Your task to perform on an android device: Go to location settings Image 0: 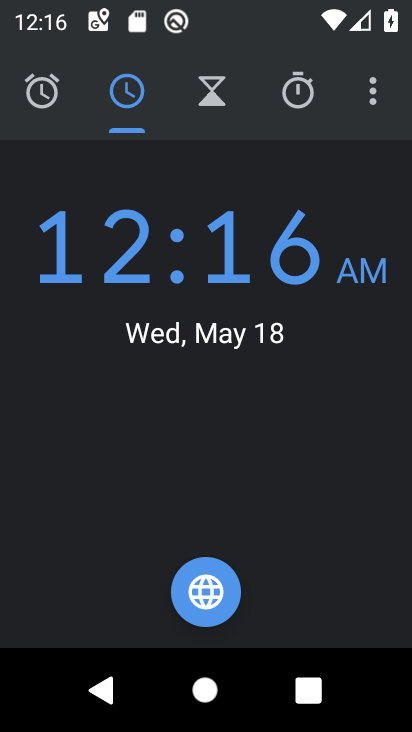
Step 0: press home button
Your task to perform on an android device: Go to location settings Image 1: 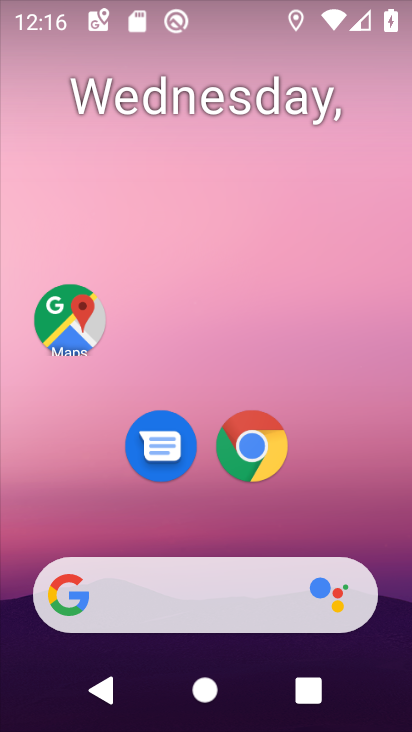
Step 1: drag from (315, 533) to (333, 15)
Your task to perform on an android device: Go to location settings Image 2: 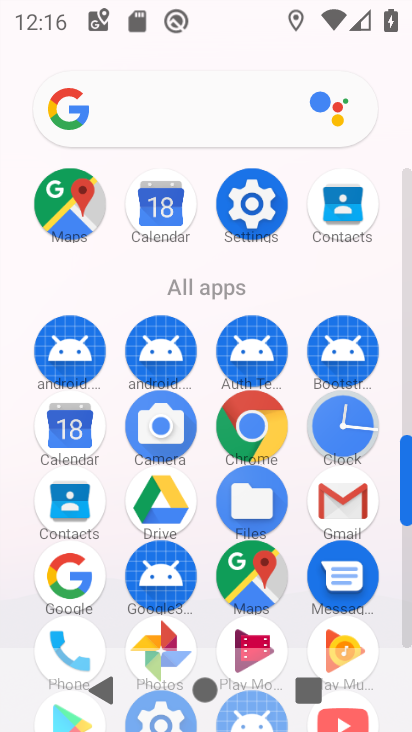
Step 2: click (254, 203)
Your task to perform on an android device: Go to location settings Image 3: 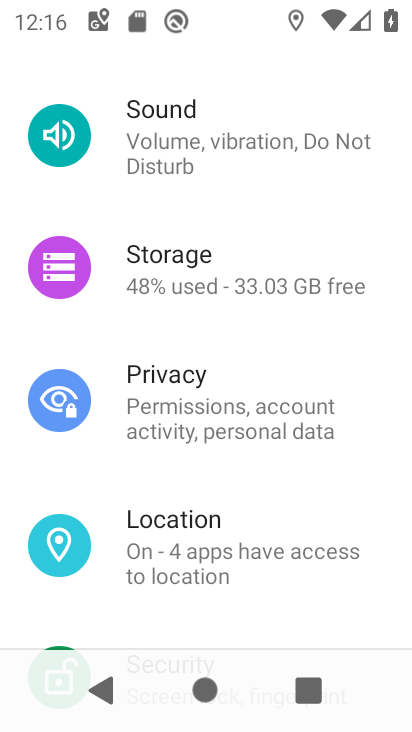
Step 3: click (181, 565)
Your task to perform on an android device: Go to location settings Image 4: 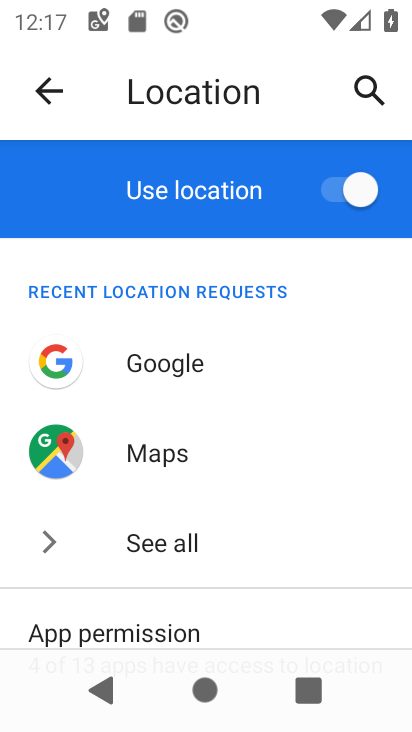
Step 4: task complete